Your task to perform on an android device: turn notification dots on Image 0: 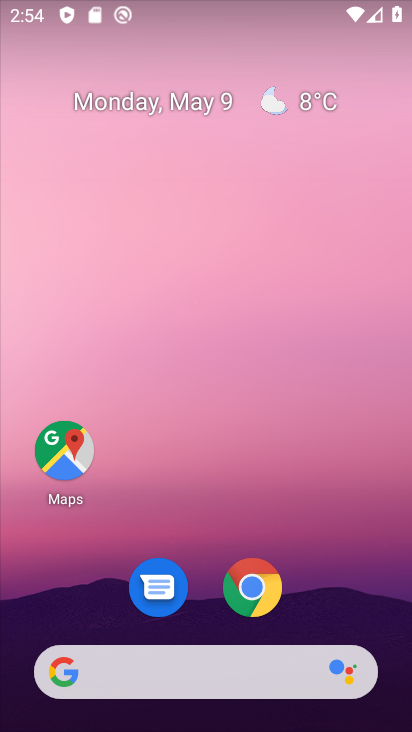
Step 0: drag from (213, 524) to (230, 225)
Your task to perform on an android device: turn notification dots on Image 1: 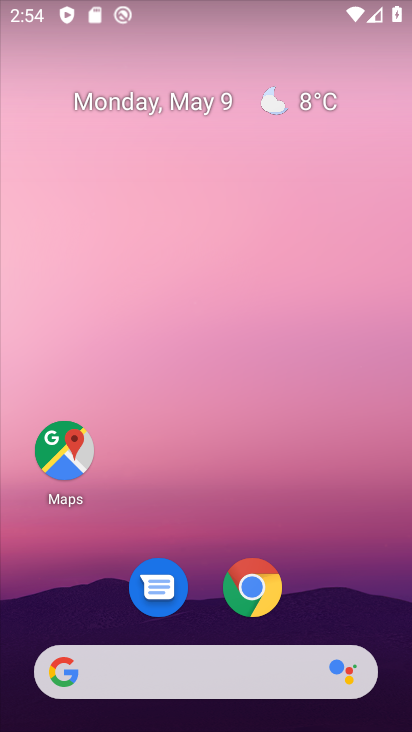
Step 1: drag from (237, 414) to (241, 5)
Your task to perform on an android device: turn notification dots on Image 2: 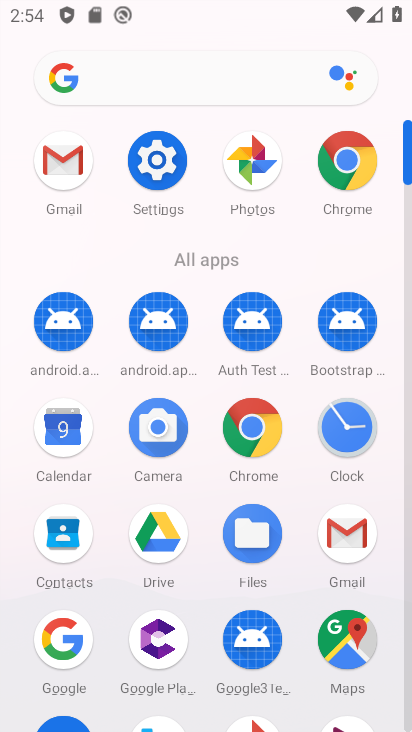
Step 2: click (141, 182)
Your task to perform on an android device: turn notification dots on Image 3: 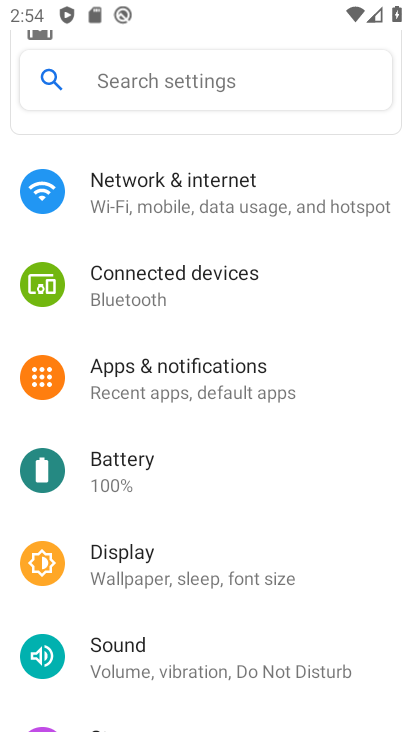
Step 3: drag from (206, 578) to (265, 351)
Your task to perform on an android device: turn notification dots on Image 4: 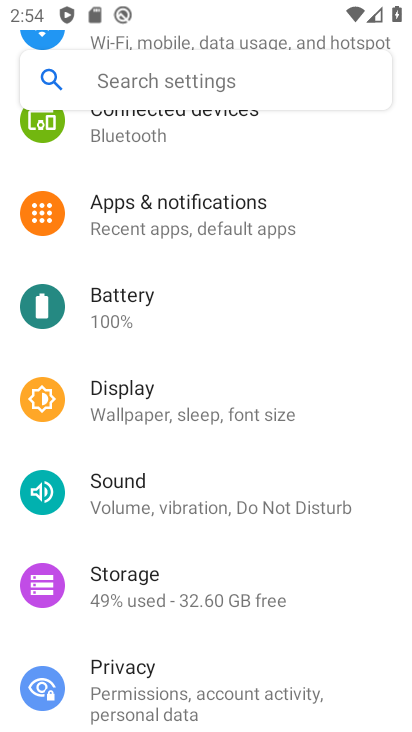
Step 4: click (151, 231)
Your task to perform on an android device: turn notification dots on Image 5: 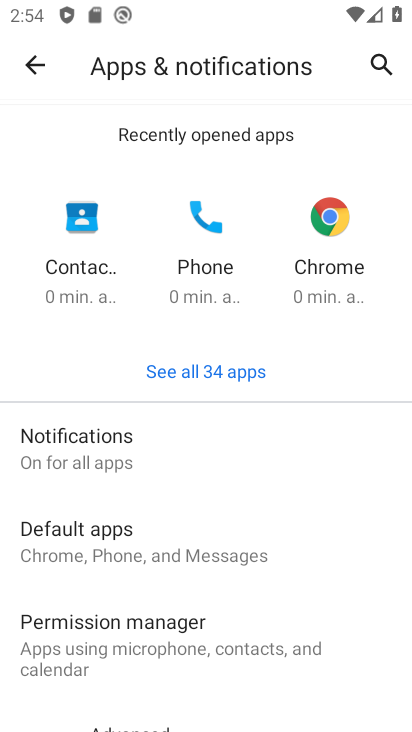
Step 5: drag from (152, 471) to (178, 225)
Your task to perform on an android device: turn notification dots on Image 6: 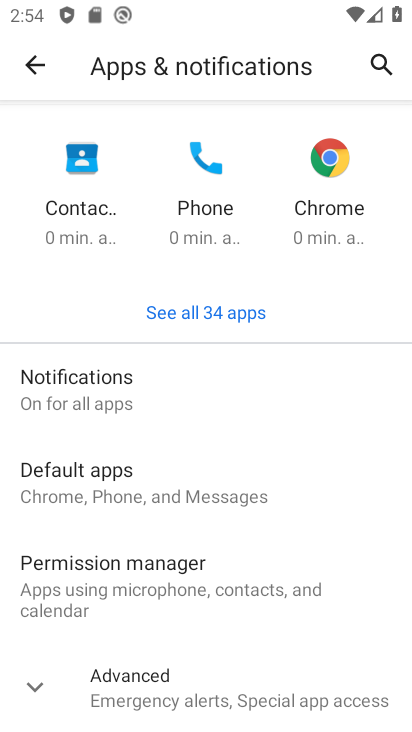
Step 6: click (98, 412)
Your task to perform on an android device: turn notification dots on Image 7: 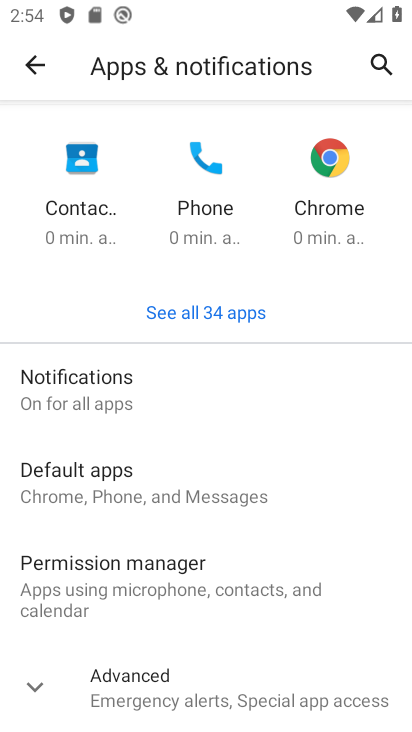
Step 7: drag from (104, 432) to (168, 112)
Your task to perform on an android device: turn notification dots on Image 8: 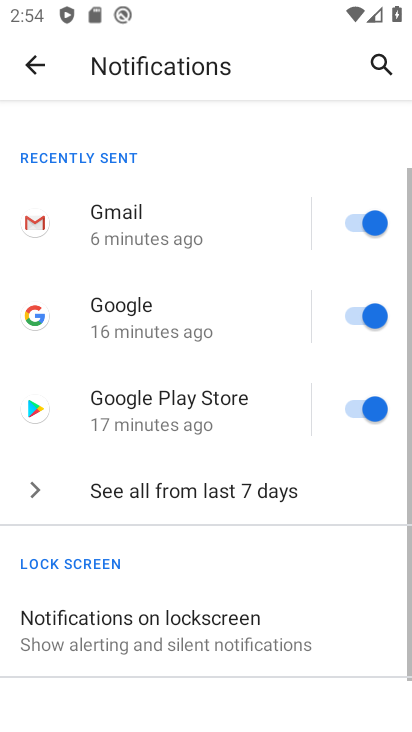
Step 8: drag from (165, 639) to (212, 131)
Your task to perform on an android device: turn notification dots on Image 9: 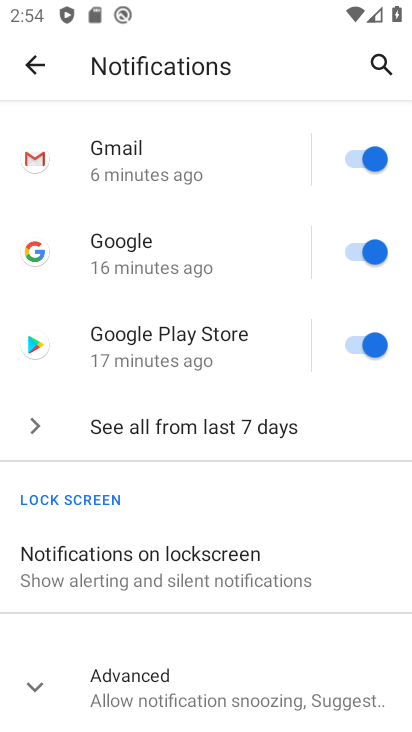
Step 9: click (205, 670)
Your task to perform on an android device: turn notification dots on Image 10: 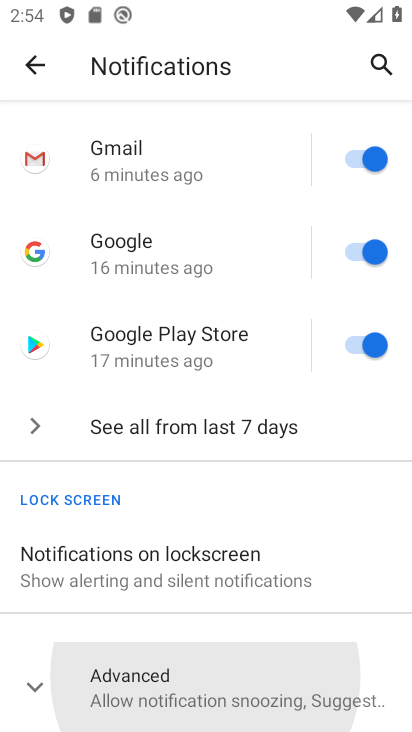
Step 10: task complete